Your task to perform on an android device: delete location history Image 0: 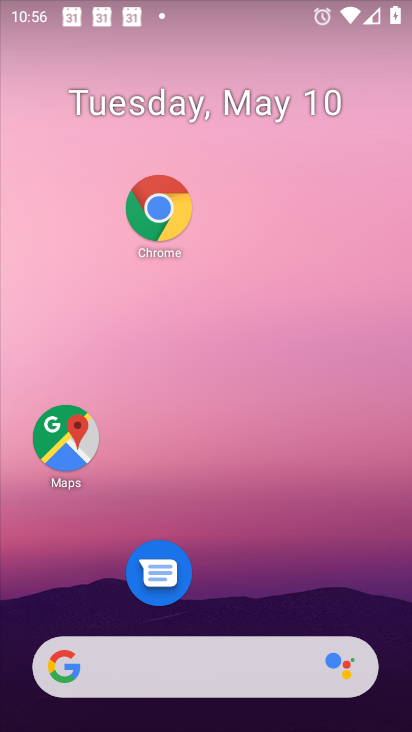
Step 0: drag from (277, 710) to (288, 156)
Your task to perform on an android device: delete location history Image 1: 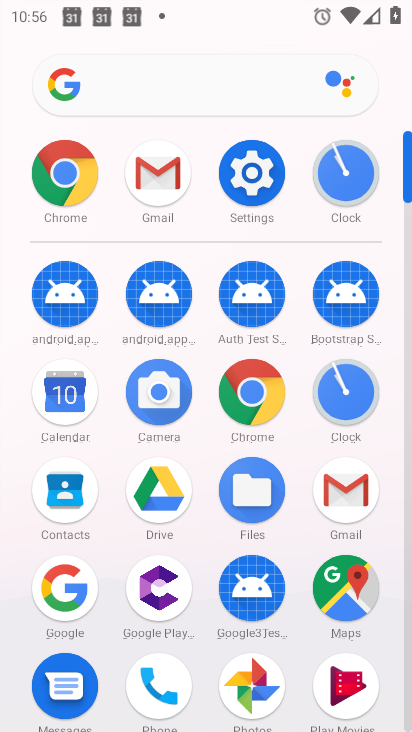
Step 1: click (258, 181)
Your task to perform on an android device: delete location history Image 2: 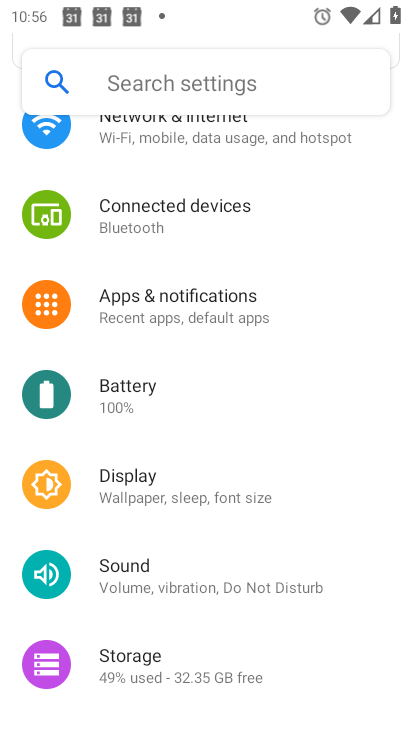
Step 2: click (205, 86)
Your task to perform on an android device: delete location history Image 3: 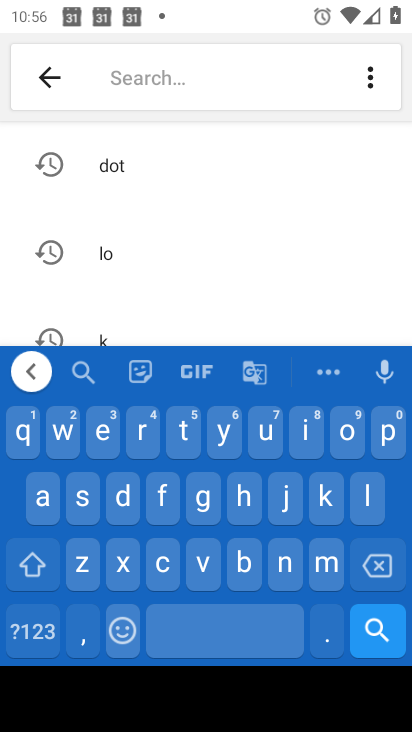
Step 3: click (152, 258)
Your task to perform on an android device: delete location history Image 4: 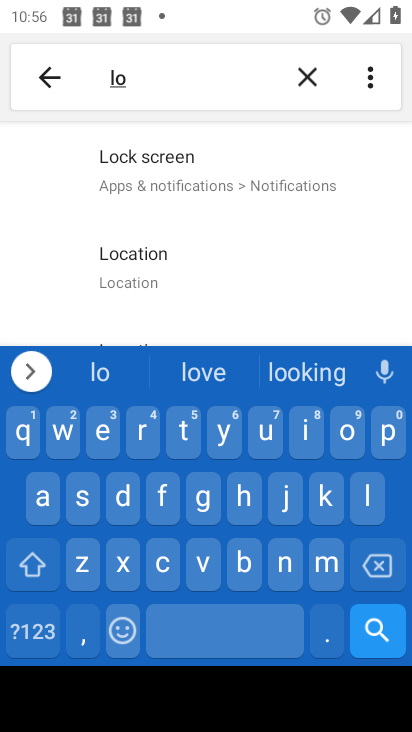
Step 4: click (148, 262)
Your task to perform on an android device: delete location history Image 5: 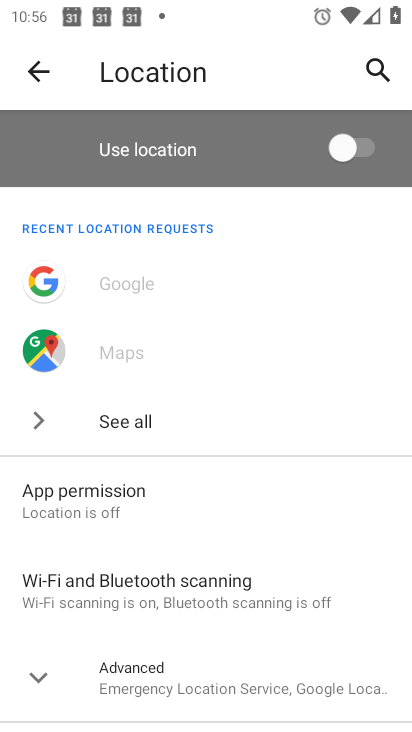
Step 5: click (64, 636)
Your task to perform on an android device: delete location history Image 6: 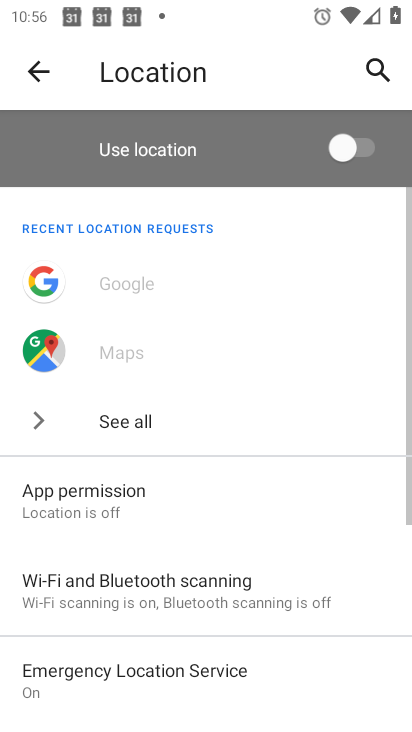
Step 6: drag from (136, 565) to (279, 231)
Your task to perform on an android device: delete location history Image 7: 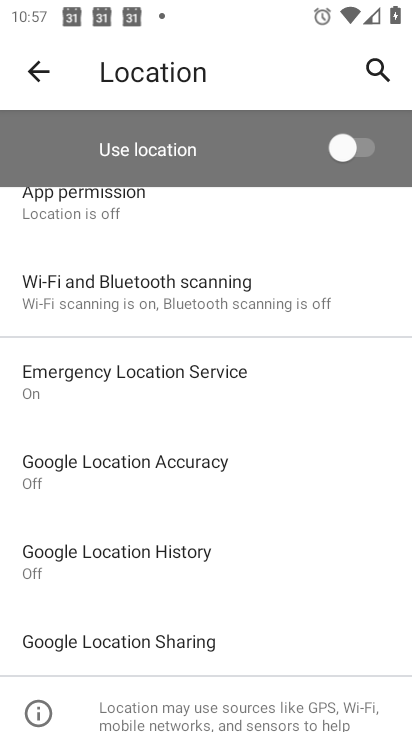
Step 7: click (167, 551)
Your task to perform on an android device: delete location history Image 8: 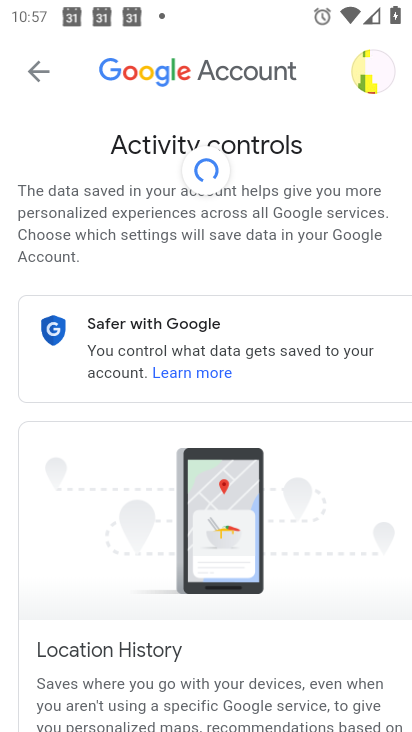
Step 8: drag from (300, 607) to (367, 277)
Your task to perform on an android device: delete location history Image 9: 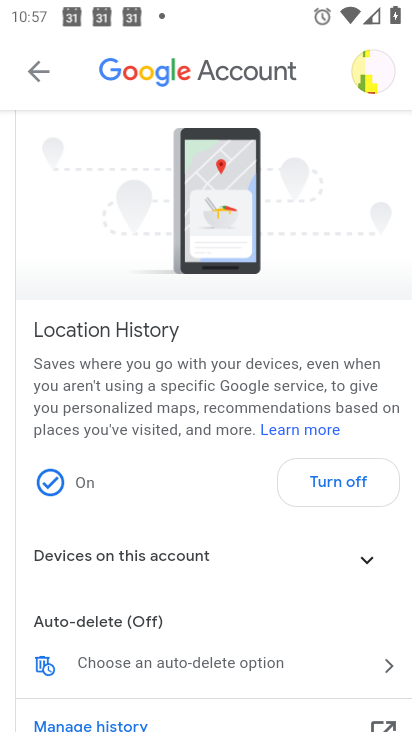
Step 9: click (177, 655)
Your task to perform on an android device: delete location history Image 10: 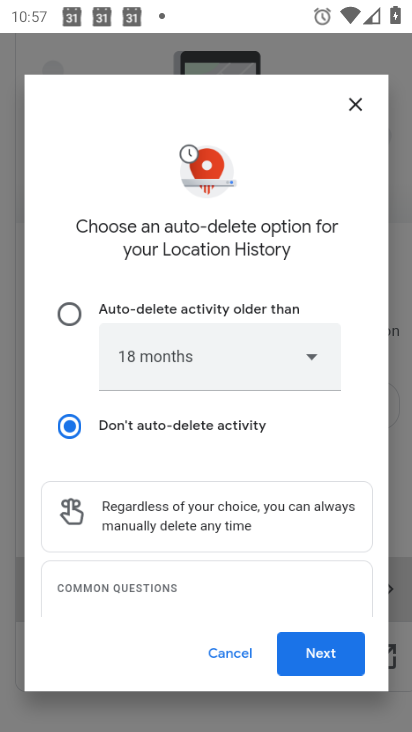
Step 10: task complete